Your task to perform on an android device: turn off location Image 0: 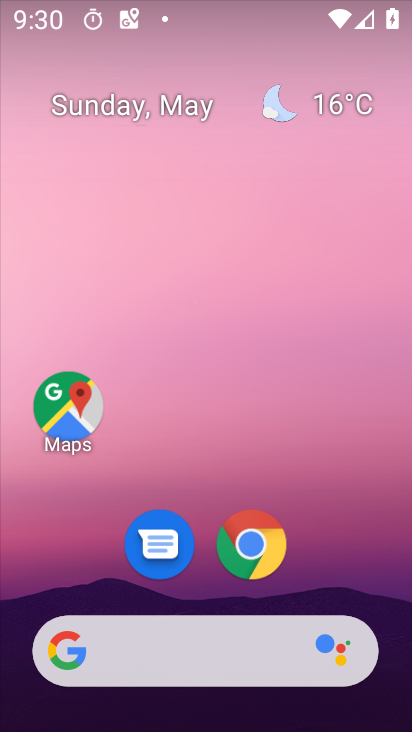
Step 0: drag from (309, 581) to (301, 66)
Your task to perform on an android device: turn off location Image 1: 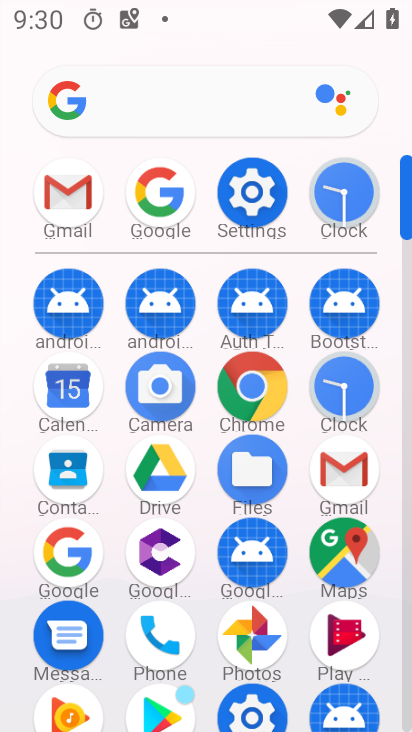
Step 1: click (242, 203)
Your task to perform on an android device: turn off location Image 2: 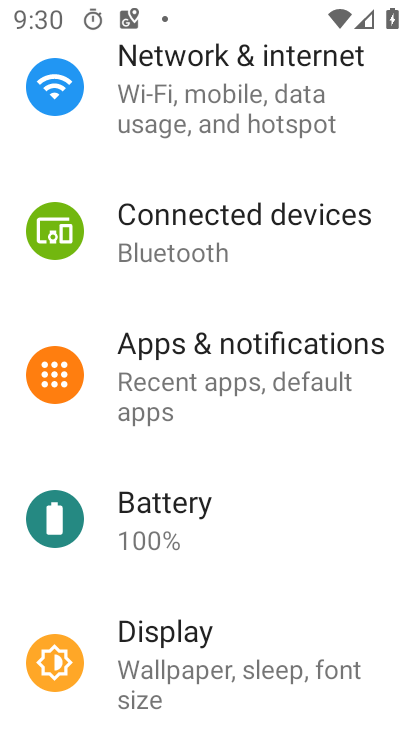
Step 2: drag from (189, 586) to (193, 246)
Your task to perform on an android device: turn off location Image 3: 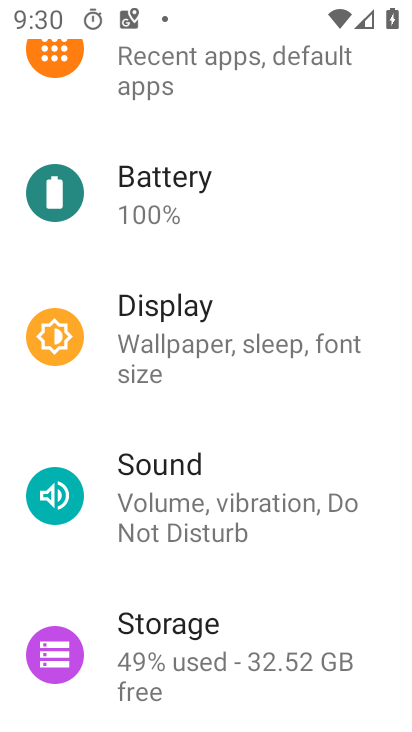
Step 3: drag from (207, 532) to (223, 152)
Your task to perform on an android device: turn off location Image 4: 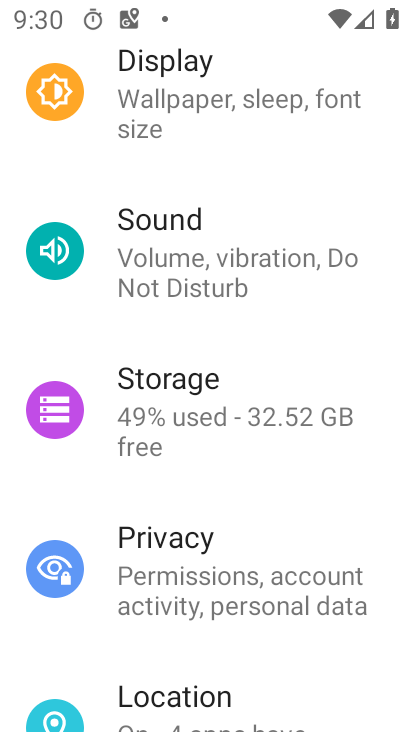
Step 4: drag from (215, 616) to (237, 189)
Your task to perform on an android device: turn off location Image 5: 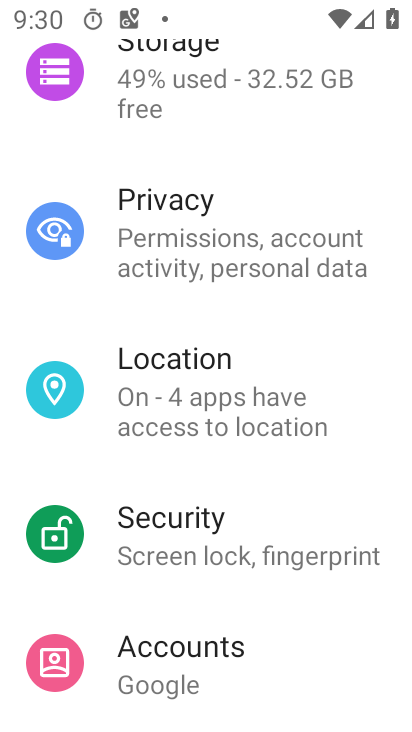
Step 5: click (197, 401)
Your task to perform on an android device: turn off location Image 6: 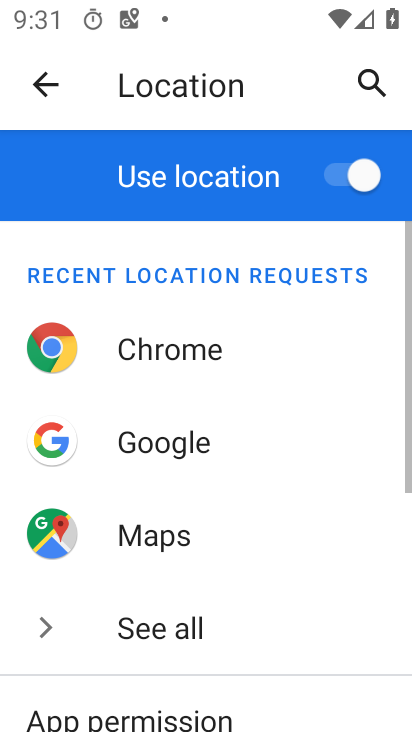
Step 6: click (333, 179)
Your task to perform on an android device: turn off location Image 7: 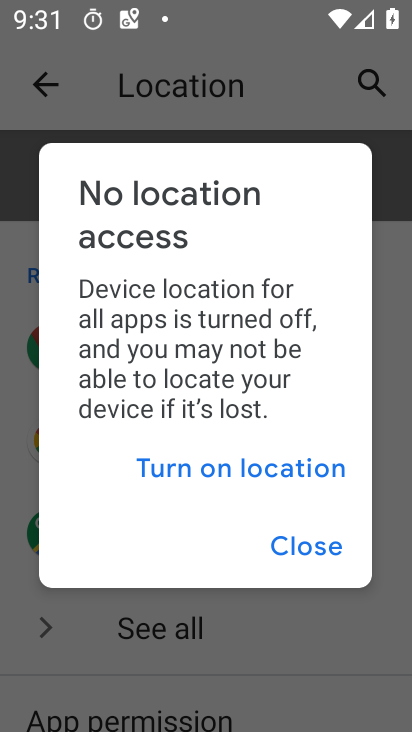
Step 7: task complete